Your task to perform on an android device: Open maps Image 0: 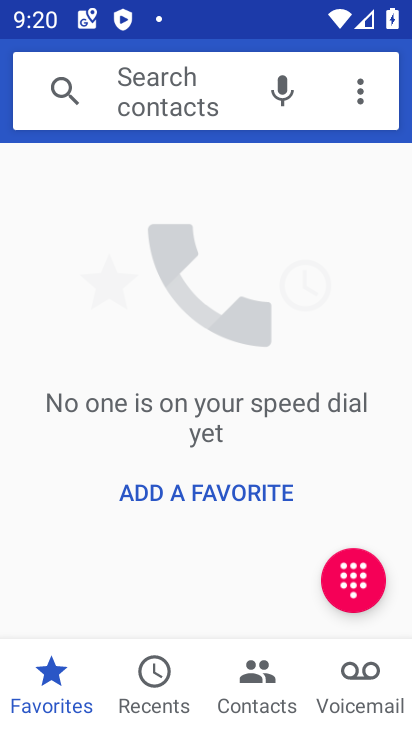
Step 0: press home button
Your task to perform on an android device: Open maps Image 1: 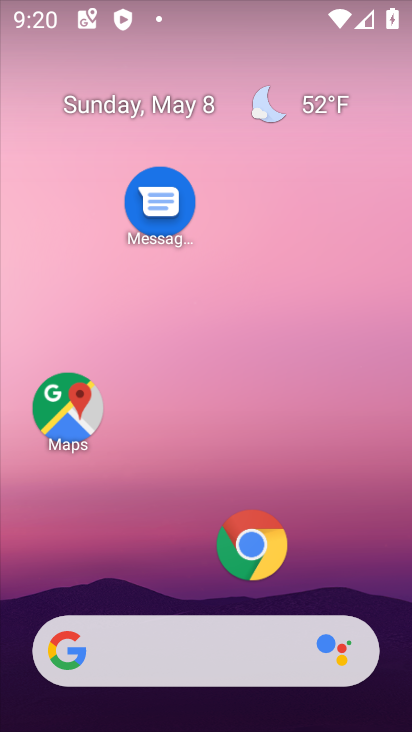
Step 1: drag from (193, 603) to (343, 435)
Your task to perform on an android device: Open maps Image 2: 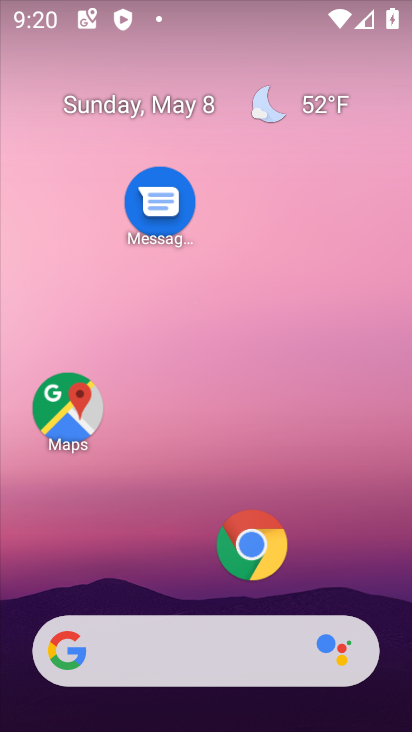
Step 2: drag from (236, 612) to (338, 15)
Your task to perform on an android device: Open maps Image 3: 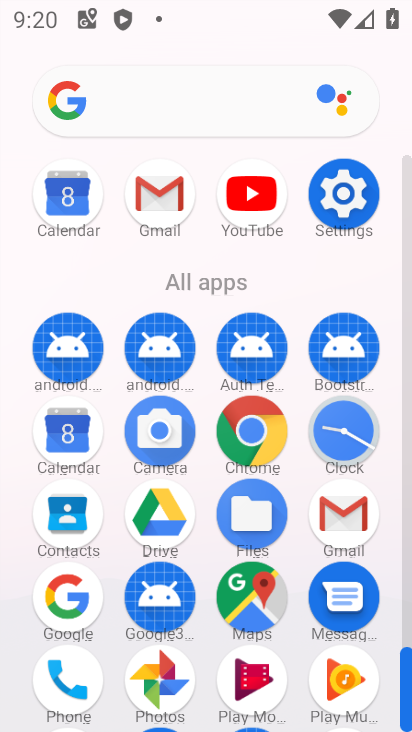
Step 3: click (236, 620)
Your task to perform on an android device: Open maps Image 4: 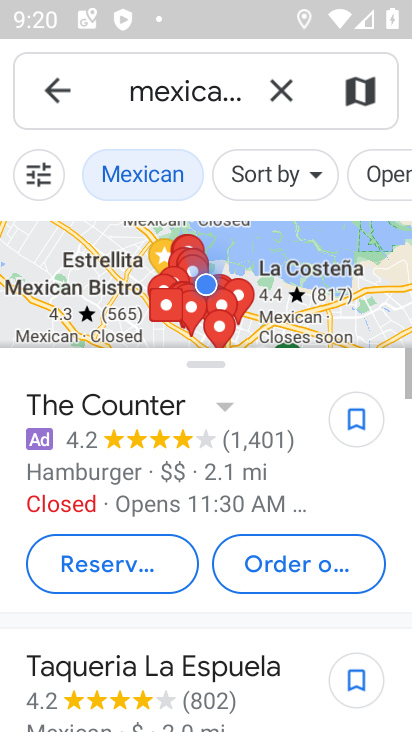
Step 4: click (269, 89)
Your task to perform on an android device: Open maps Image 5: 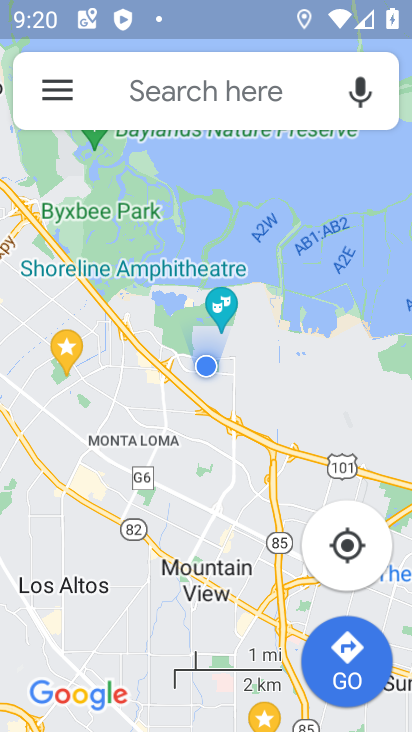
Step 5: task complete